Your task to perform on an android device: turn off sleep mode Image 0: 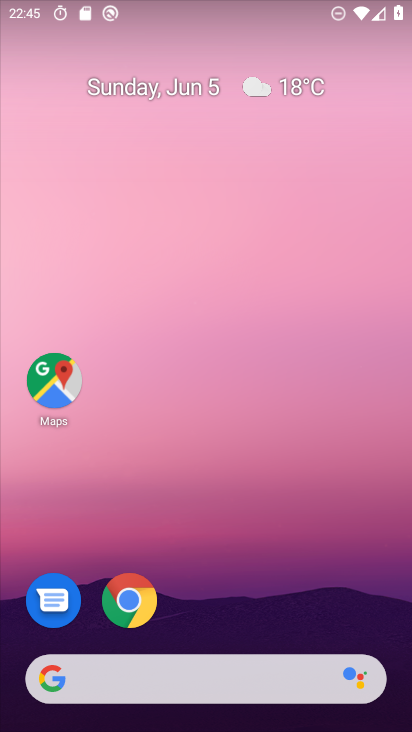
Step 0: click (274, 207)
Your task to perform on an android device: turn off sleep mode Image 1: 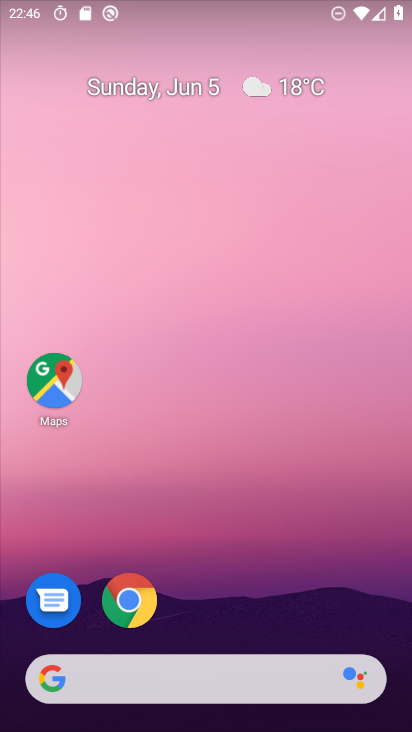
Step 1: drag from (294, 512) to (276, 89)
Your task to perform on an android device: turn off sleep mode Image 2: 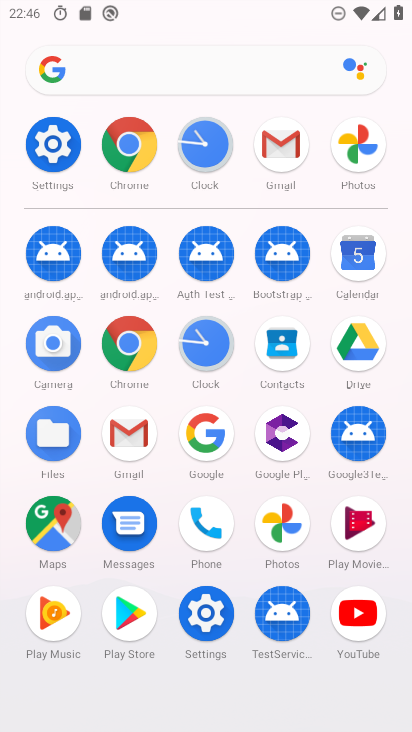
Step 2: click (67, 140)
Your task to perform on an android device: turn off sleep mode Image 3: 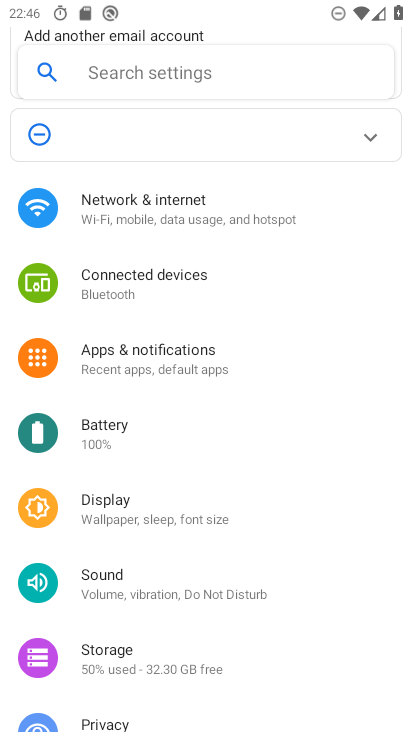
Step 3: click (152, 508)
Your task to perform on an android device: turn off sleep mode Image 4: 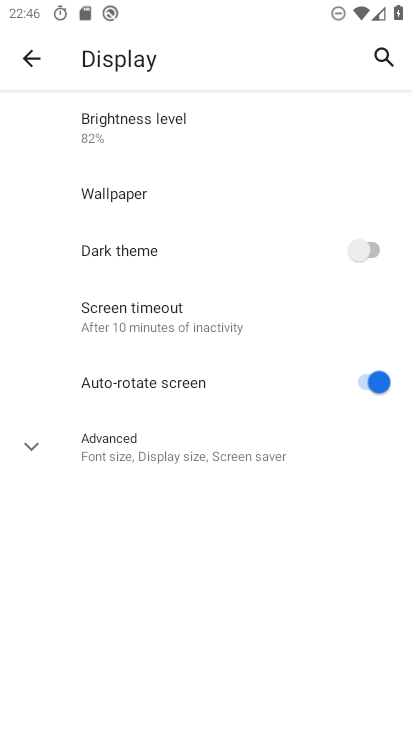
Step 4: click (239, 334)
Your task to perform on an android device: turn off sleep mode Image 5: 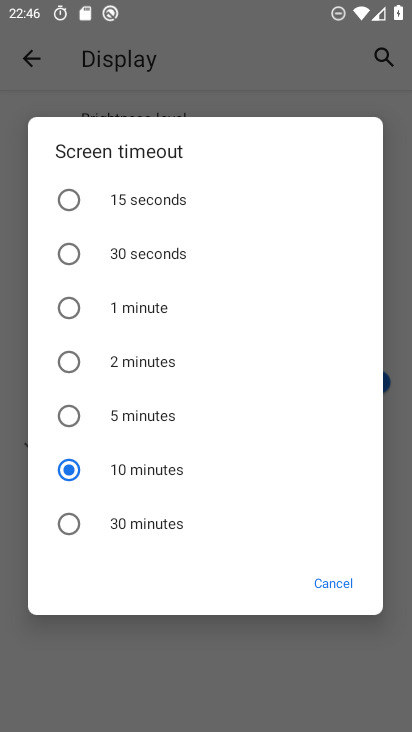
Step 5: task complete